Your task to perform on an android device: When is my next meeting? Image 0: 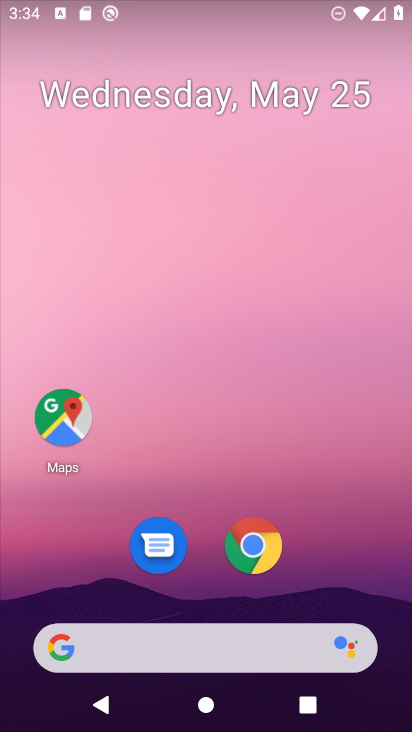
Step 0: drag from (337, 543) to (136, 19)
Your task to perform on an android device: When is my next meeting? Image 1: 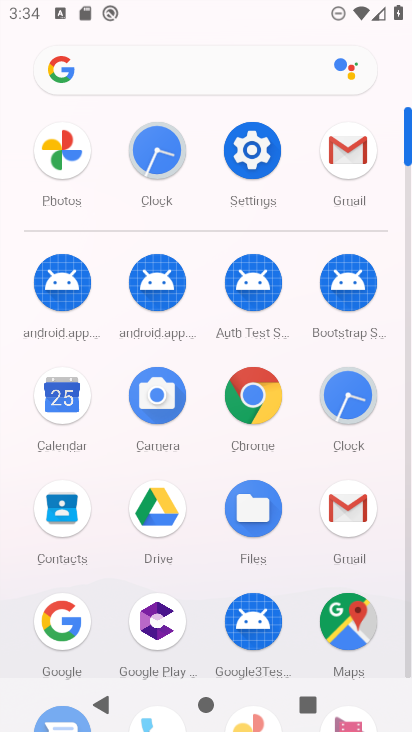
Step 1: click (79, 408)
Your task to perform on an android device: When is my next meeting? Image 2: 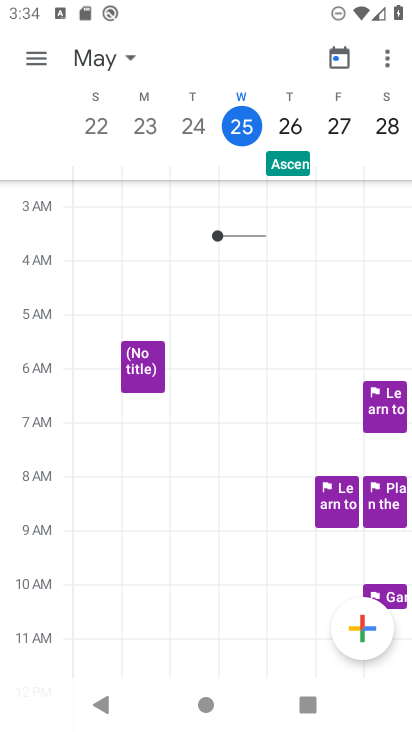
Step 2: task complete